Your task to perform on an android device: toggle airplane mode Image 0: 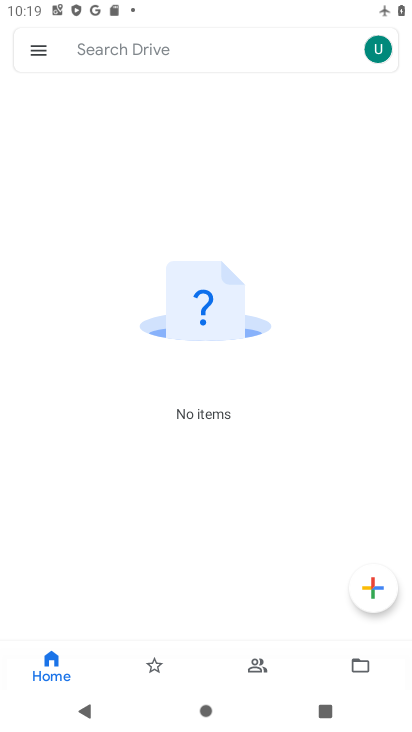
Step 0: press home button
Your task to perform on an android device: toggle airplane mode Image 1: 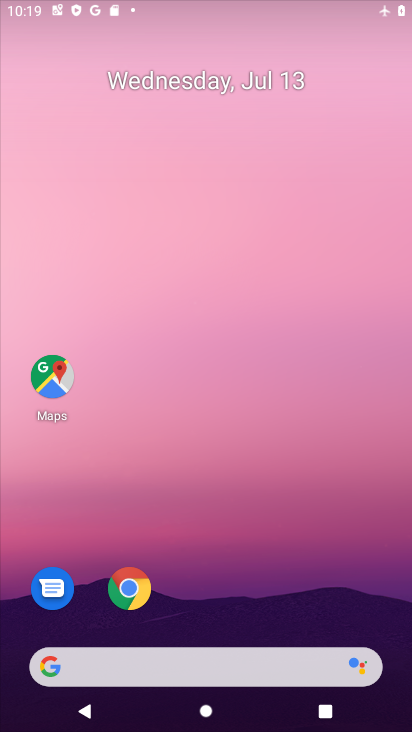
Step 1: drag from (222, 613) to (218, 144)
Your task to perform on an android device: toggle airplane mode Image 2: 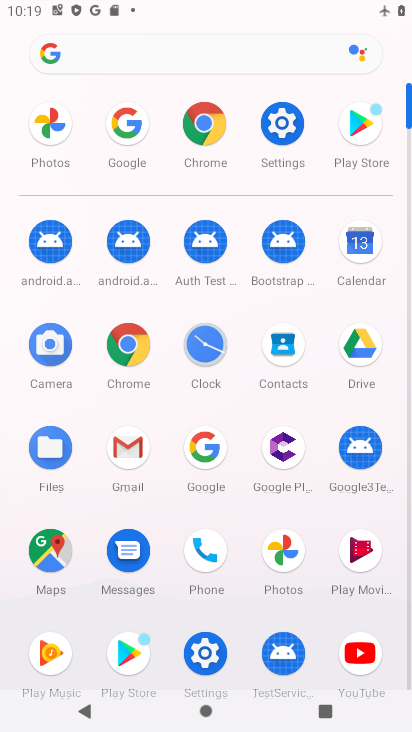
Step 2: click (277, 123)
Your task to perform on an android device: toggle airplane mode Image 3: 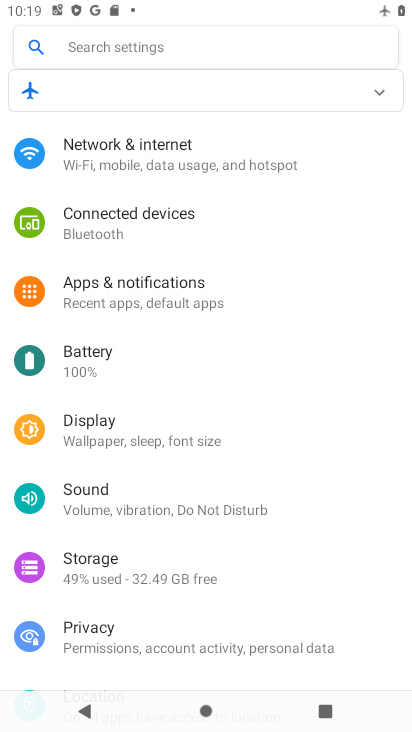
Step 3: click (142, 157)
Your task to perform on an android device: toggle airplane mode Image 4: 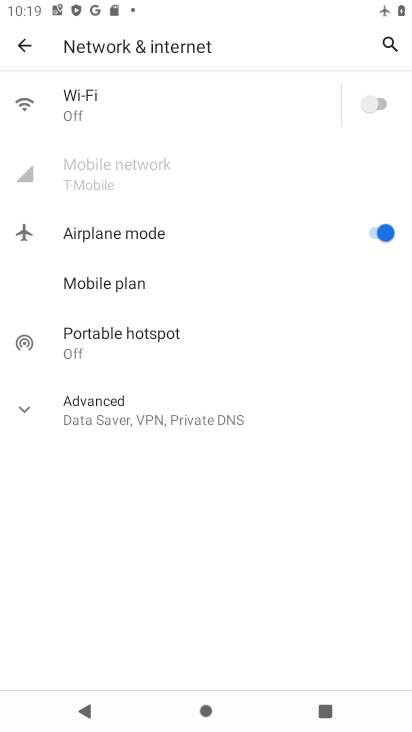
Step 4: click (370, 228)
Your task to perform on an android device: toggle airplane mode Image 5: 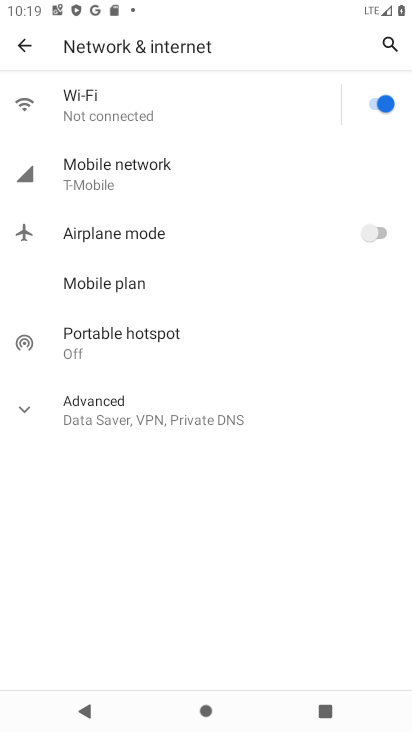
Step 5: task complete